Your task to perform on an android device: change notifications settings Image 0: 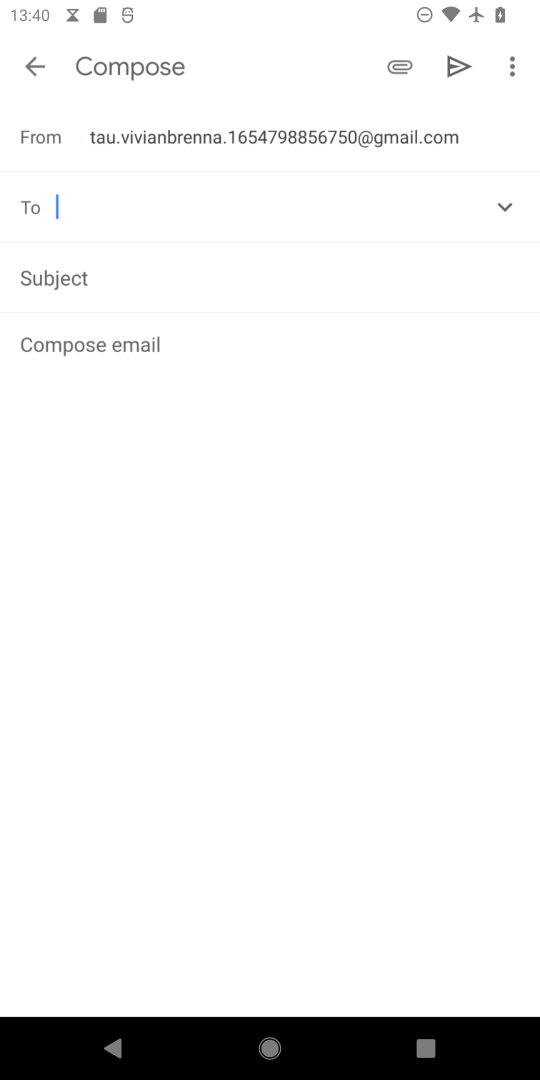
Step 0: press home button
Your task to perform on an android device: change notifications settings Image 1: 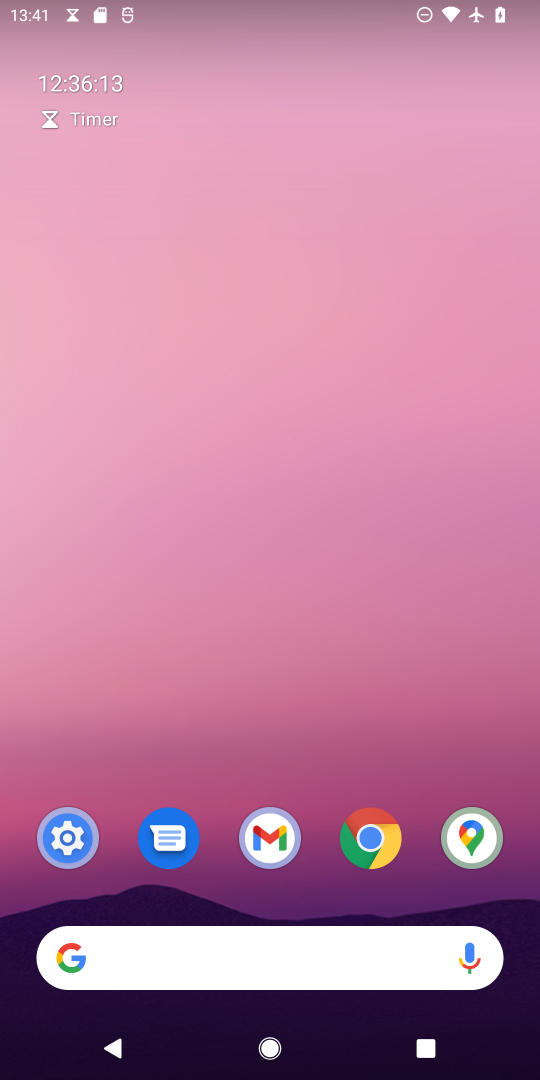
Step 1: click (74, 845)
Your task to perform on an android device: change notifications settings Image 2: 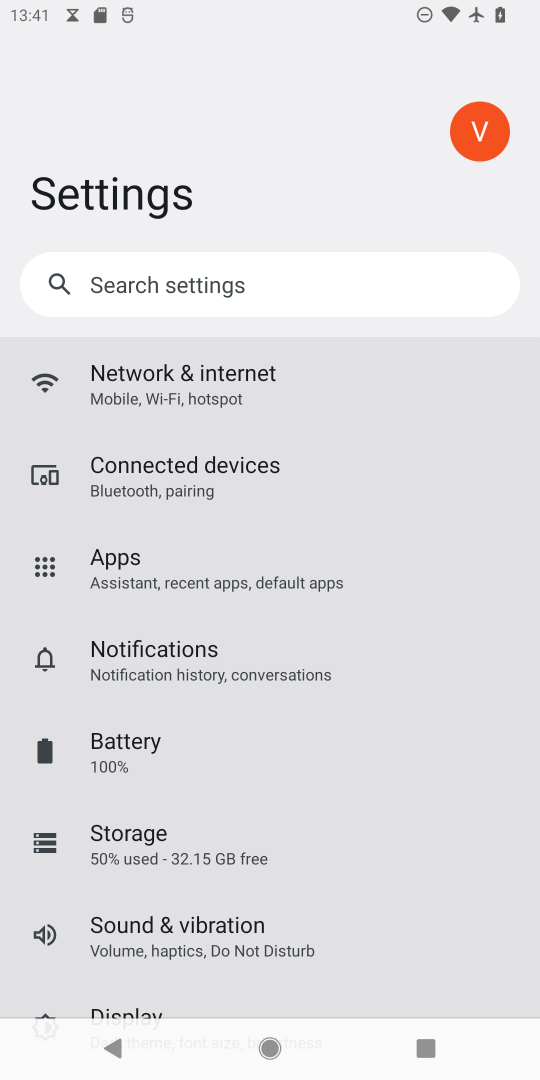
Step 2: click (165, 673)
Your task to perform on an android device: change notifications settings Image 3: 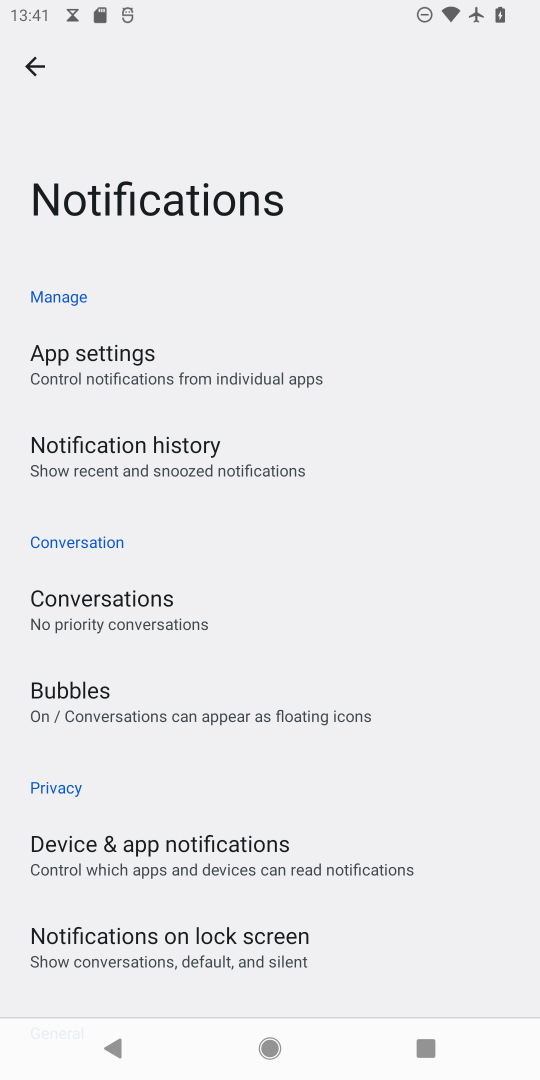
Step 3: click (226, 935)
Your task to perform on an android device: change notifications settings Image 4: 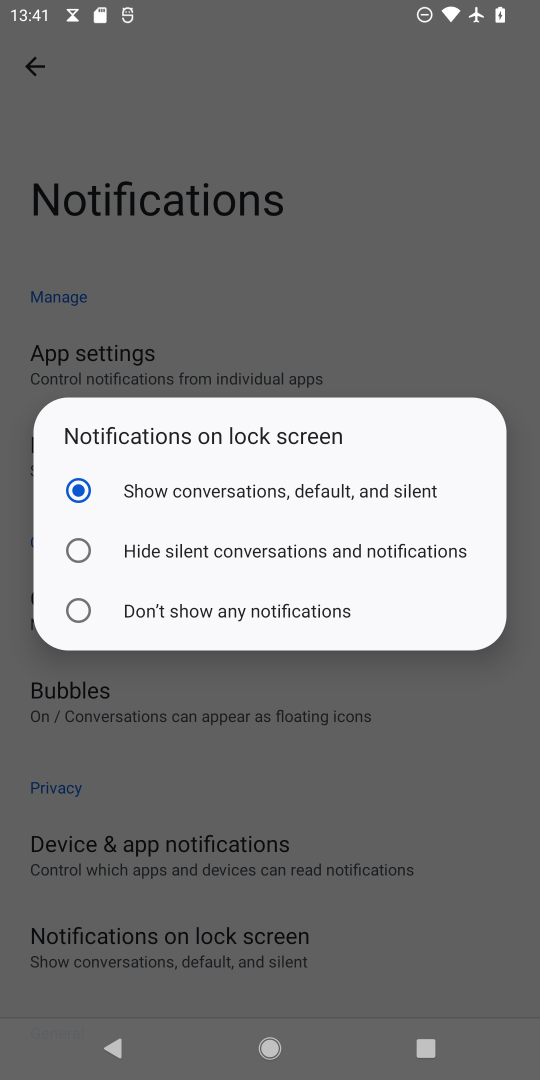
Step 4: click (70, 610)
Your task to perform on an android device: change notifications settings Image 5: 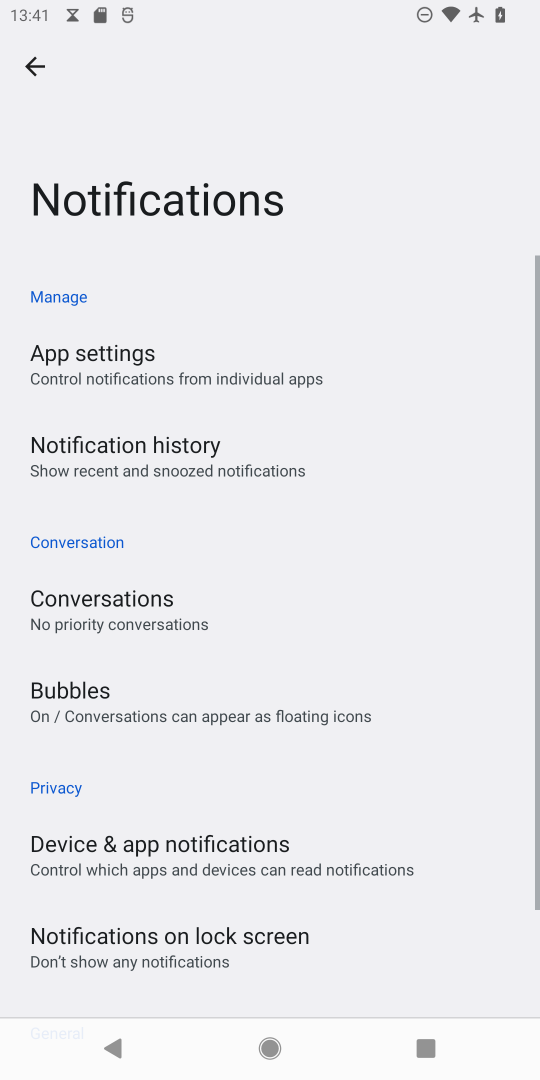
Step 5: task complete